Your task to perform on an android device: turn off data saver in the chrome app Image 0: 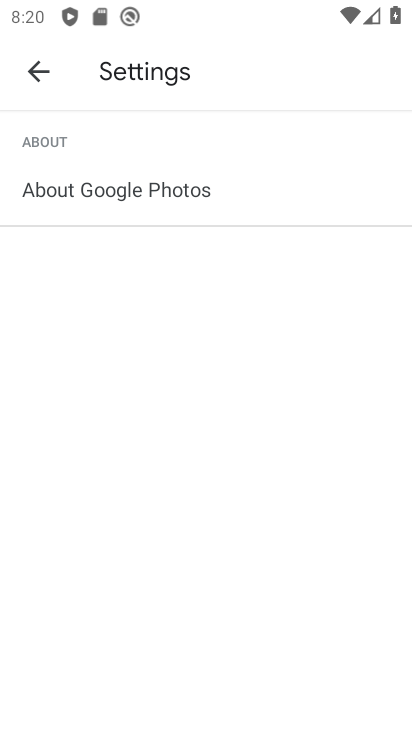
Step 0: press back button
Your task to perform on an android device: turn off data saver in the chrome app Image 1: 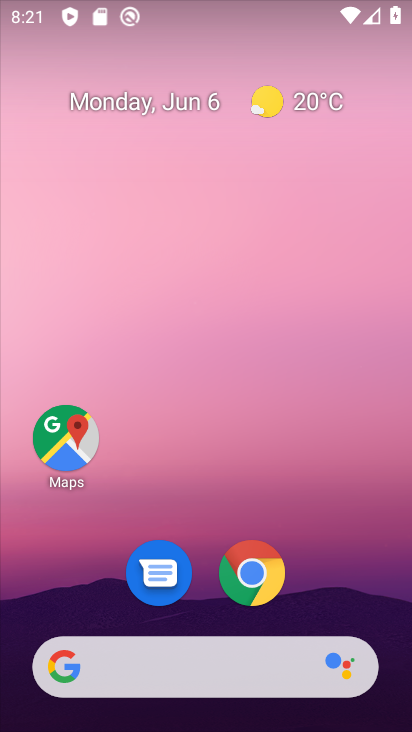
Step 1: click (235, 563)
Your task to perform on an android device: turn off data saver in the chrome app Image 2: 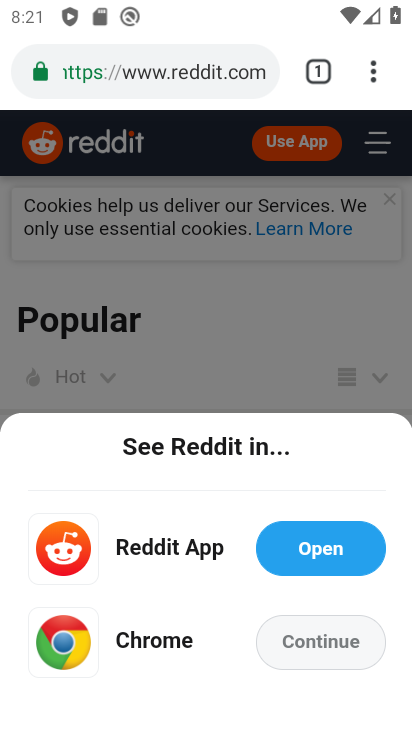
Step 2: drag from (368, 65) to (130, 580)
Your task to perform on an android device: turn off data saver in the chrome app Image 3: 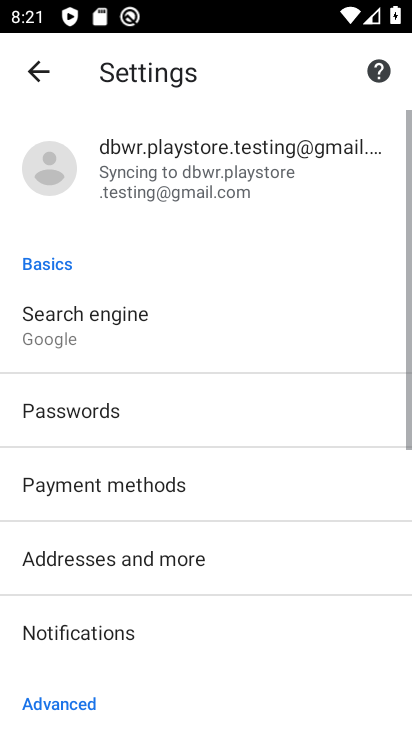
Step 3: drag from (136, 567) to (200, 132)
Your task to perform on an android device: turn off data saver in the chrome app Image 4: 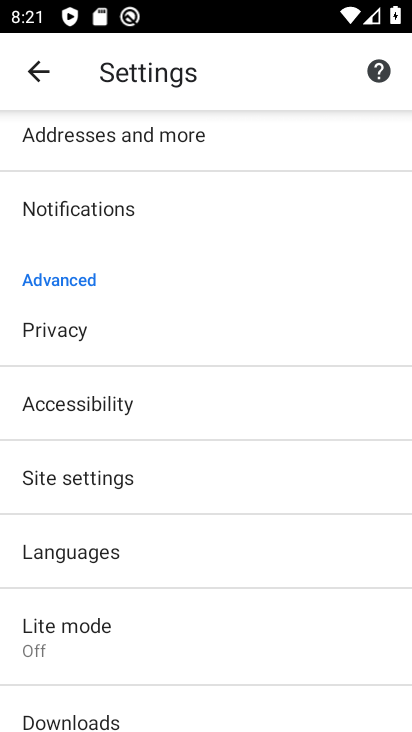
Step 4: click (78, 640)
Your task to perform on an android device: turn off data saver in the chrome app Image 5: 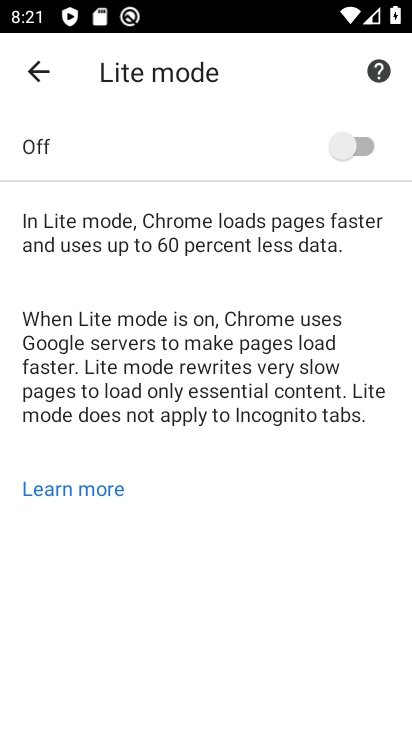
Step 5: task complete